Your task to perform on an android device: Open accessibility settings Image 0: 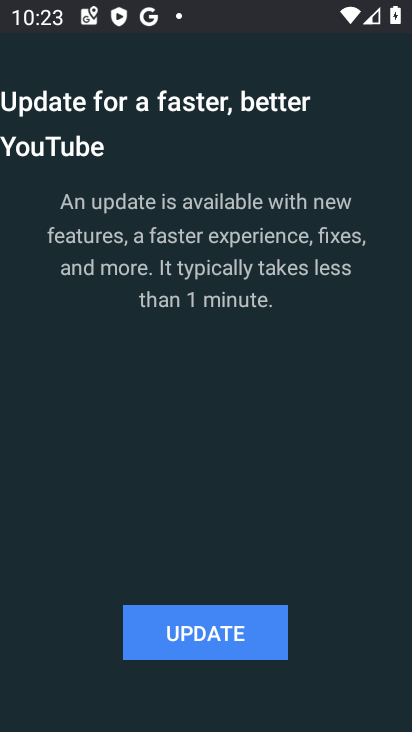
Step 0: press home button
Your task to perform on an android device: Open accessibility settings Image 1: 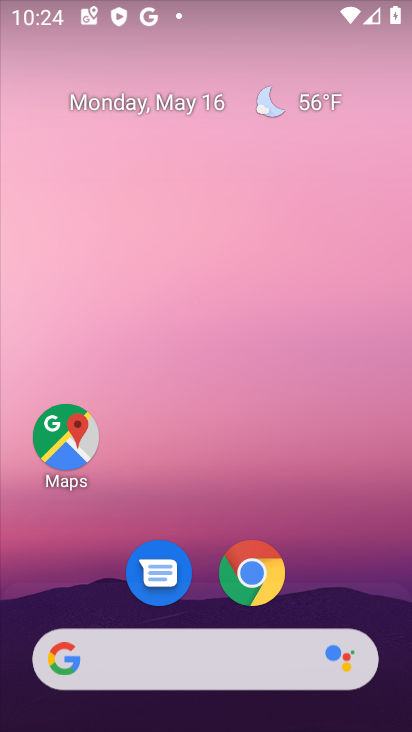
Step 1: drag from (329, 584) to (273, 250)
Your task to perform on an android device: Open accessibility settings Image 2: 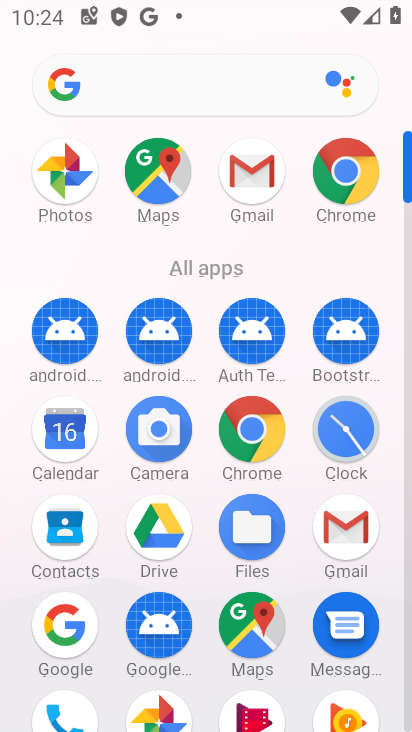
Step 2: drag from (202, 299) to (182, 64)
Your task to perform on an android device: Open accessibility settings Image 3: 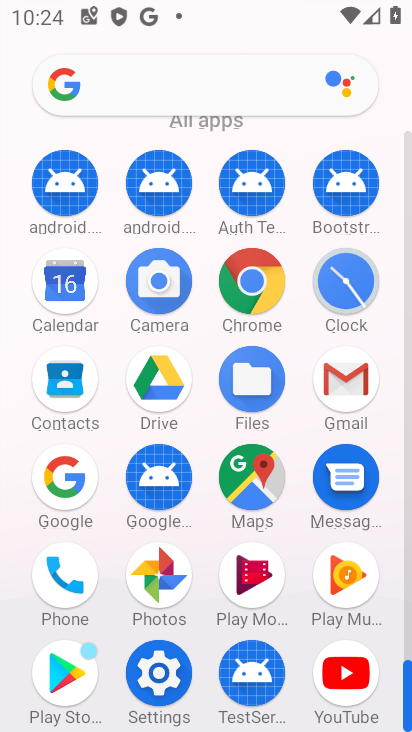
Step 3: click (155, 669)
Your task to perform on an android device: Open accessibility settings Image 4: 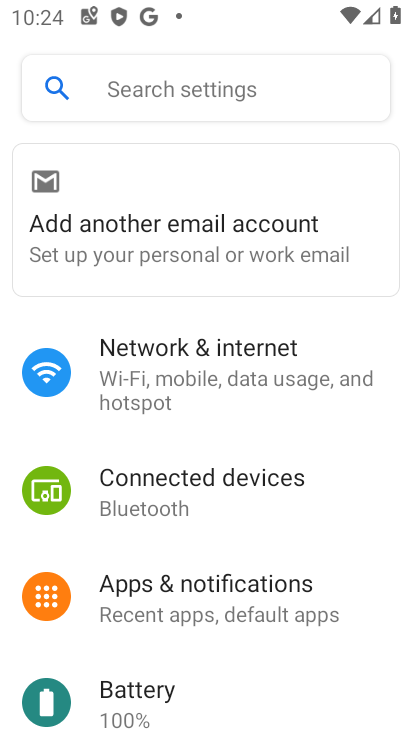
Step 4: drag from (254, 641) to (219, 338)
Your task to perform on an android device: Open accessibility settings Image 5: 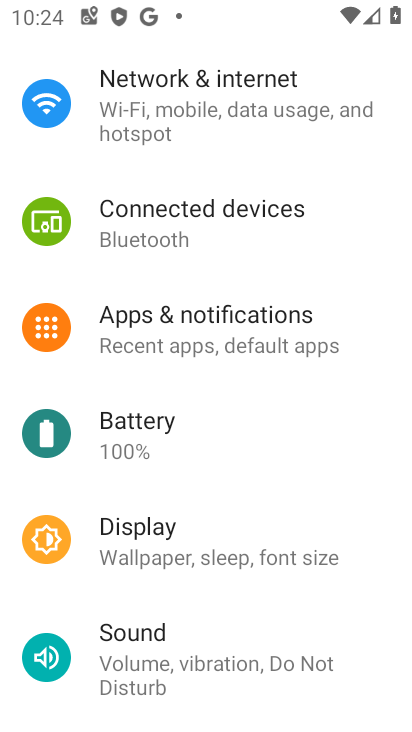
Step 5: drag from (273, 591) to (236, 259)
Your task to perform on an android device: Open accessibility settings Image 6: 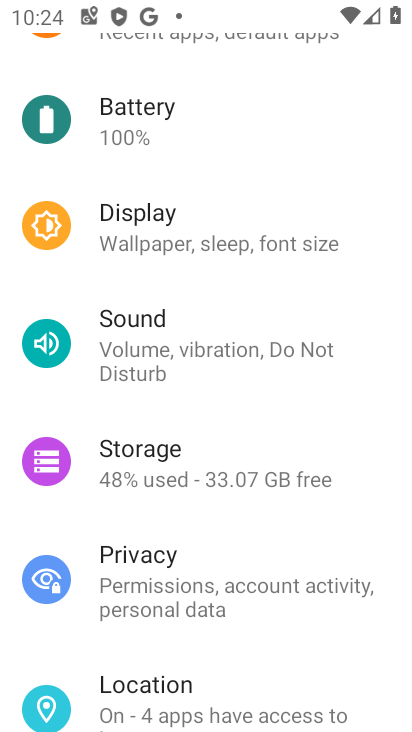
Step 6: drag from (306, 609) to (291, 260)
Your task to perform on an android device: Open accessibility settings Image 7: 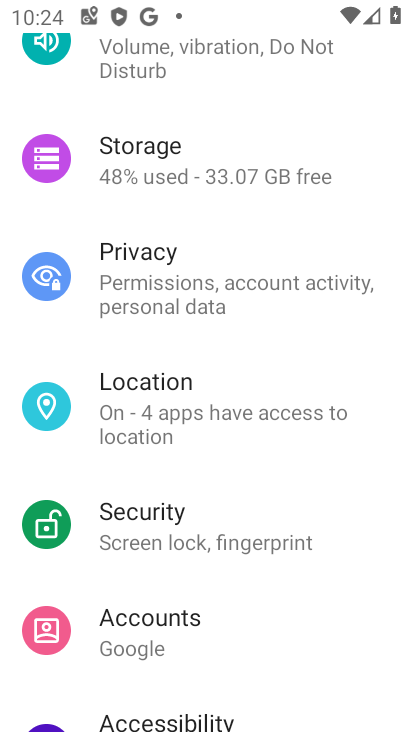
Step 7: drag from (248, 684) to (241, 303)
Your task to perform on an android device: Open accessibility settings Image 8: 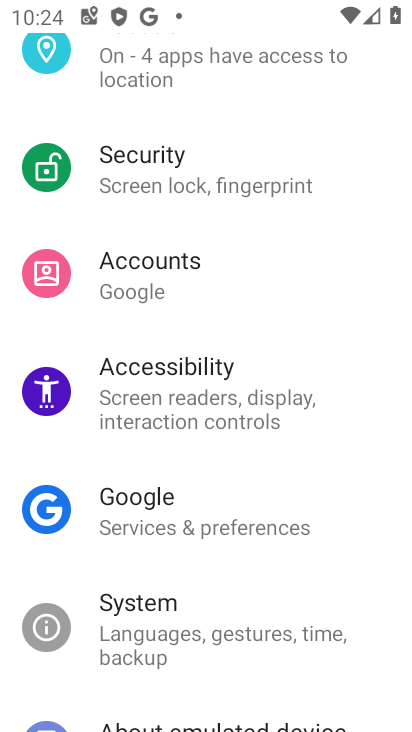
Step 8: click (205, 419)
Your task to perform on an android device: Open accessibility settings Image 9: 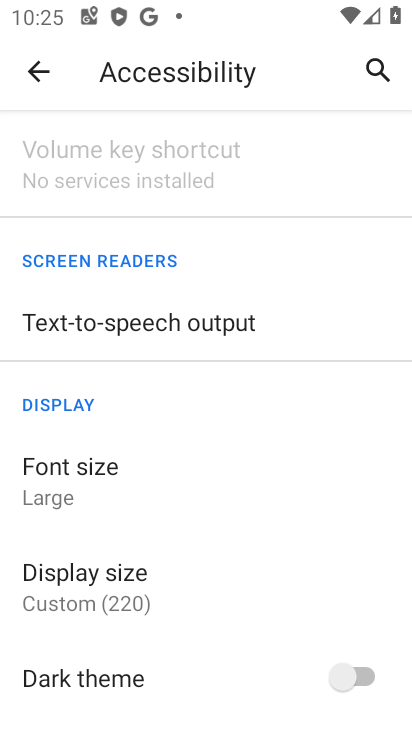
Step 9: task complete